Your task to perform on an android device: Turn on the flashlight Image 0: 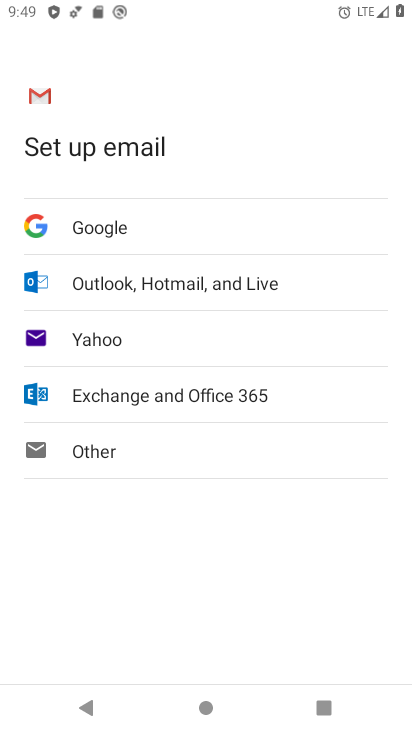
Step 0: press home button
Your task to perform on an android device: Turn on the flashlight Image 1: 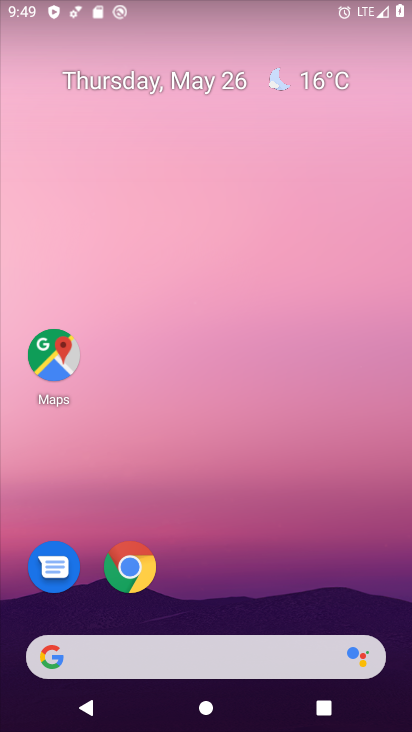
Step 1: drag from (374, 579) to (334, 129)
Your task to perform on an android device: Turn on the flashlight Image 2: 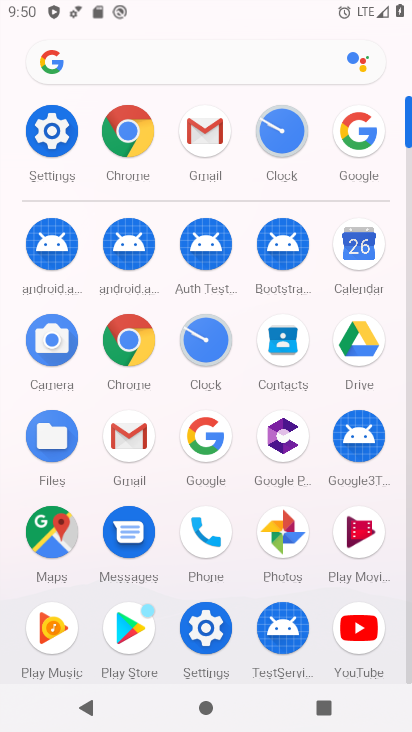
Step 2: click (47, 130)
Your task to perform on an android device: Turn on the flashlight Image 3: 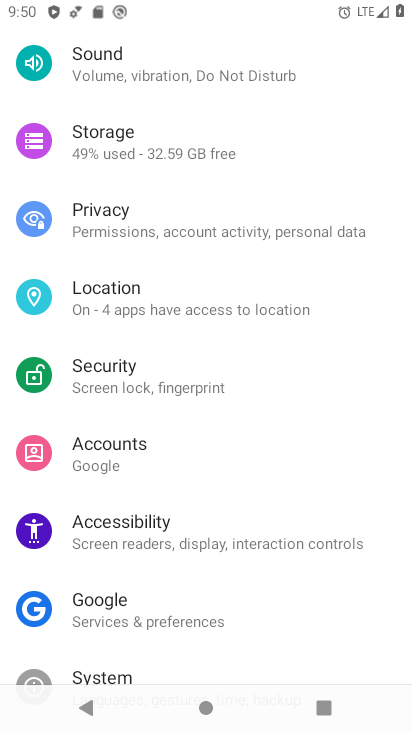
Step 3: drag from (347, 248) to (346, 568)
Your task to perform on an android device: Turn on the flashlight Image 4: 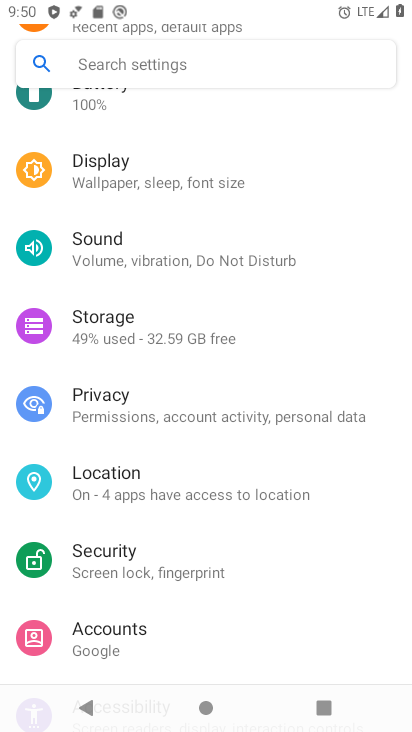
Step 4: click (101, 162)
Your task to perform on an android device: Turn on the flashlight Image 5: 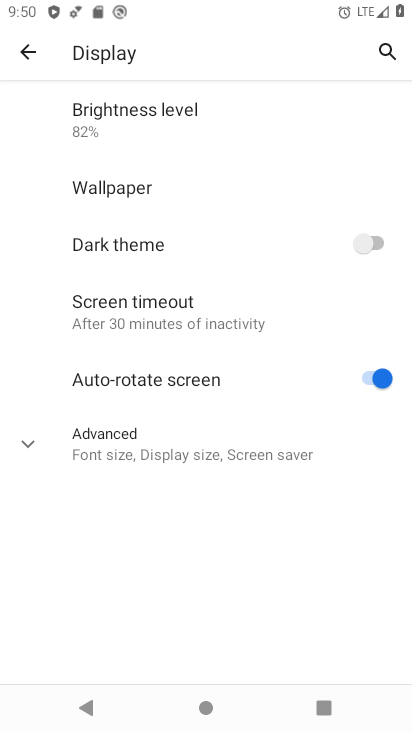
Step 5: task complete